Your task to perform on an android device: Open Google Maps and go to "Timeline" Image 0: 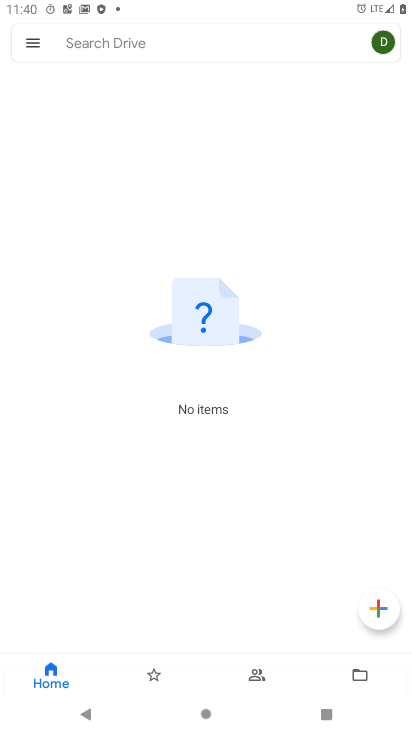
Step 0: press home button
Your task to perform on an android device: Open Google Maps and go to "Timeline" Image 1: 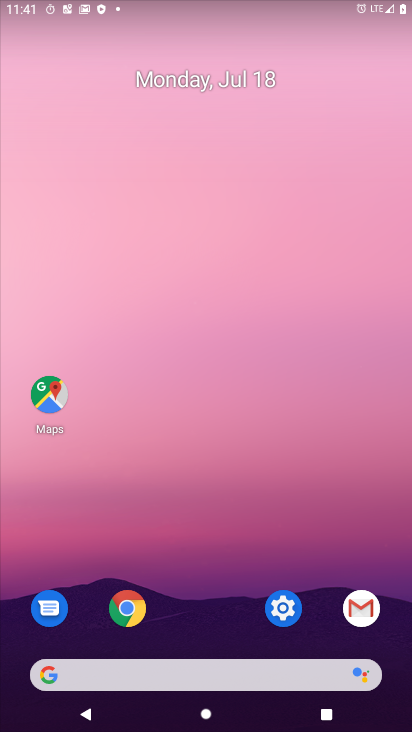
Step 1: click (48, 398)
Your task to perform on an android device: Open Google Maps and go to "Timeline" Image 2: 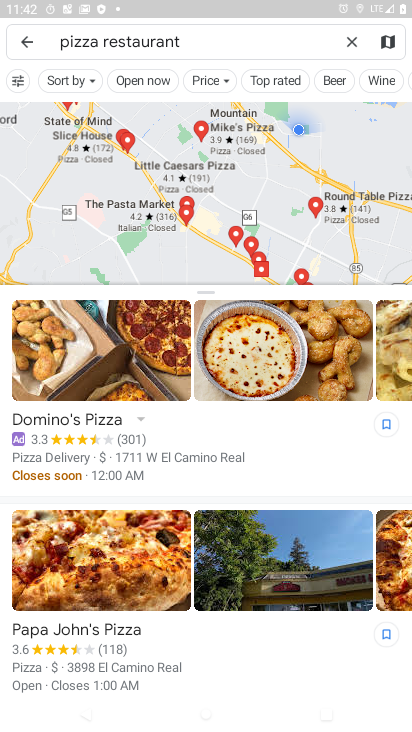
Step 2: click (19, 48)
Your task to perform on an android device: Open Google Maps and go to "Timeline" Image 3: 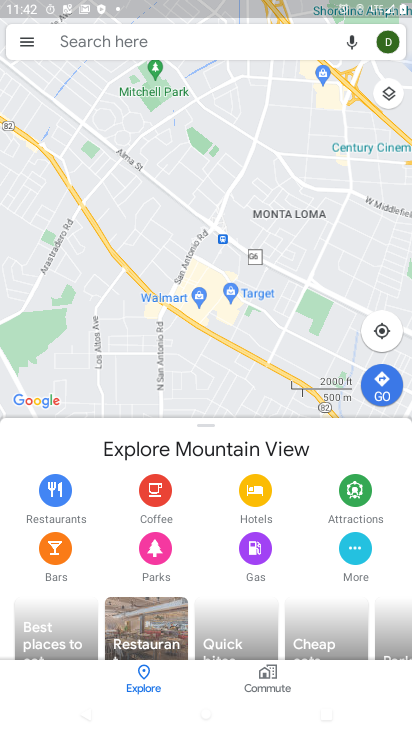
Step 3: click (18, 48)
Your task to perform on an android device: Open Google Maps and go to "Timeline" Image 4: 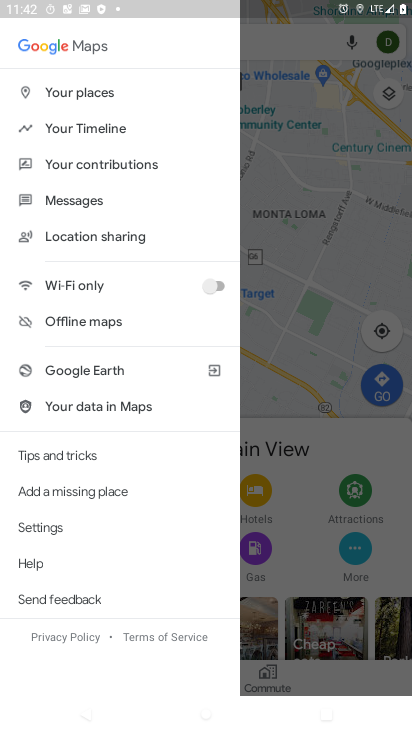
Step 4: click (81, 134)
Your task to perform on an android device: Open Google Maps and go to "Timeline" Image 5: 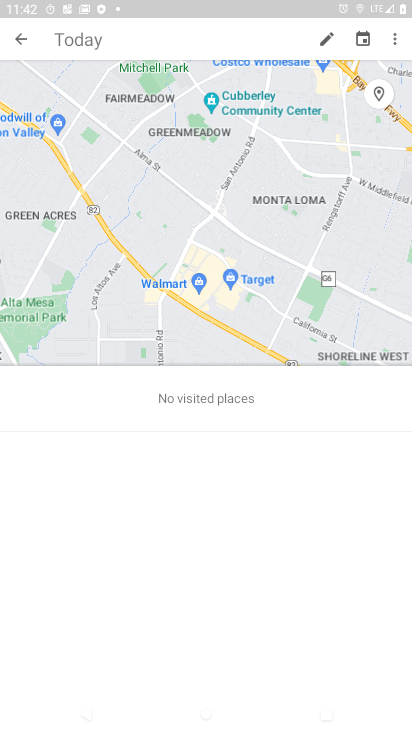
Step 5: task complete